Your task to perform on an android device: Search for handmade jewelry on Etsy. Image 0: 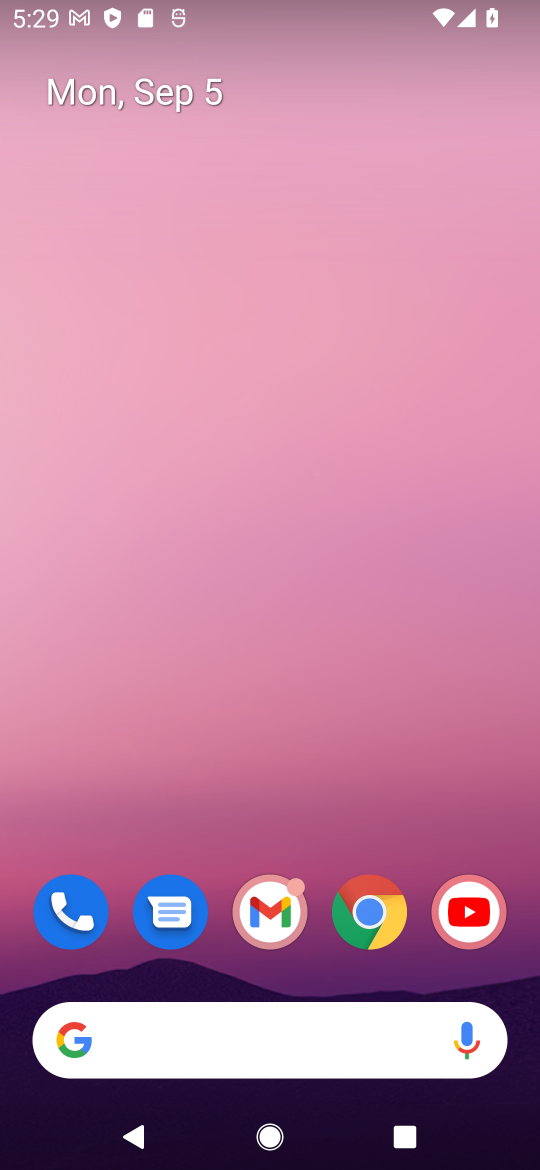
Step 0: click (382, 923)
Your task to perform on an android device: Search for handmade jewelry on Etsy. Image 1: 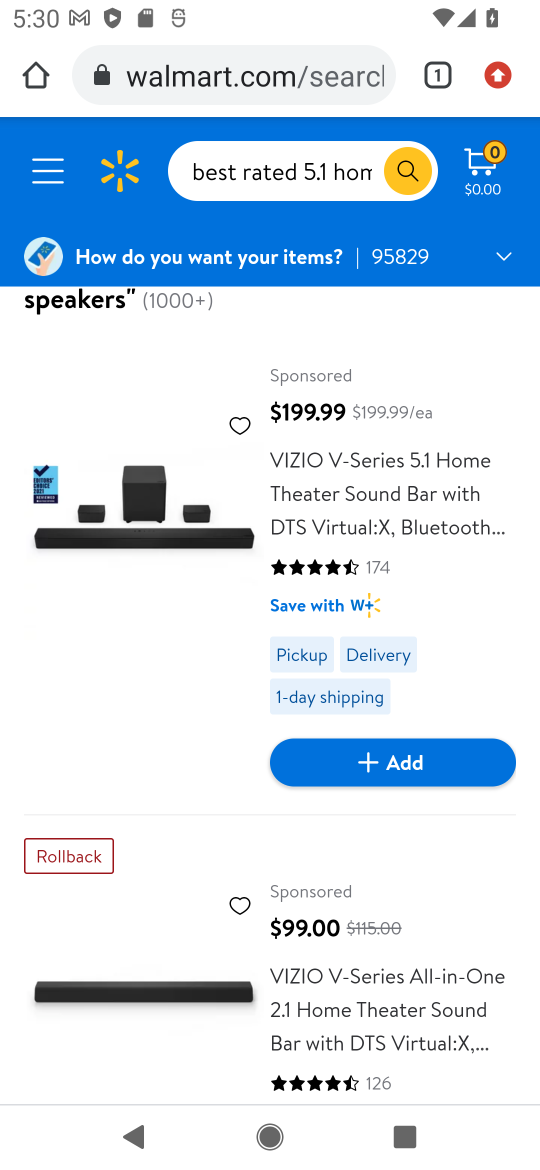
Step 1: click (255, 67)
Your task to perform on an android device: Search for handmade jewelry on Etsy. Image 2: 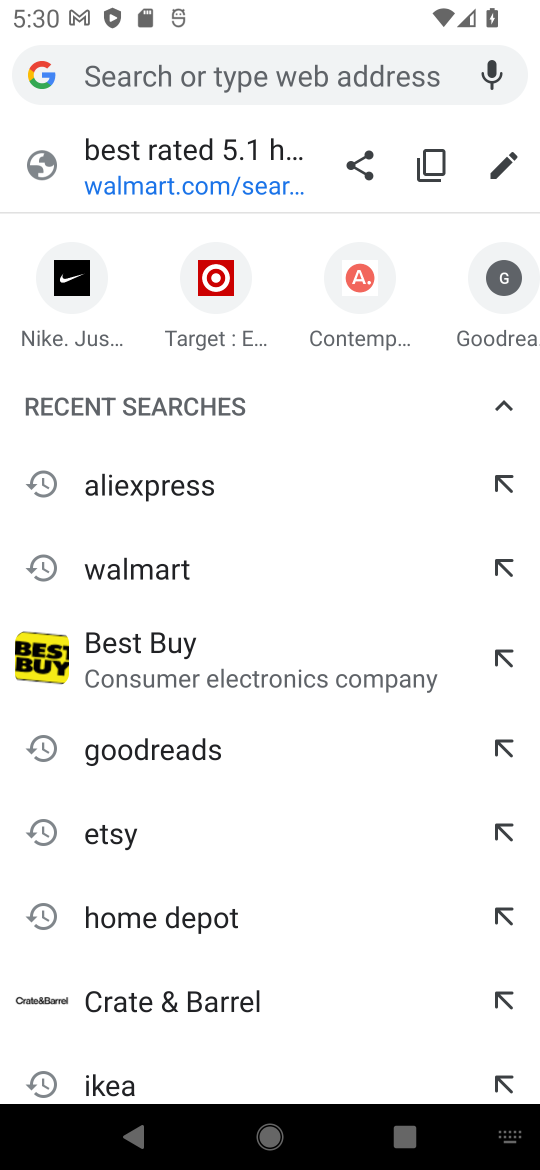
Step 2: type "etsy"
Your task to perform on an android device: Search for handmade jewelry on Etsy. Image 3: 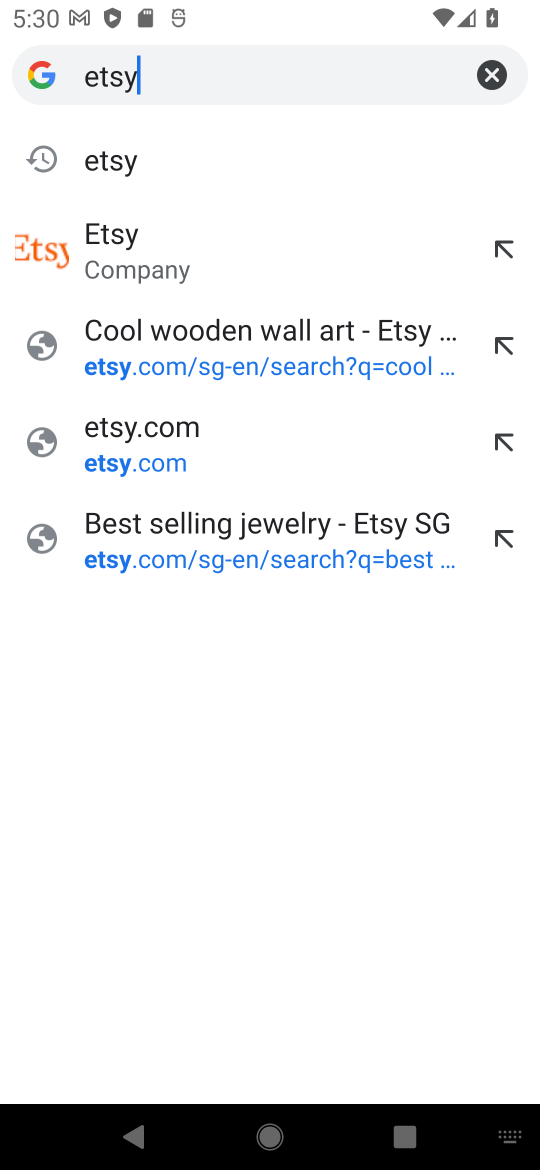
Step 3: press enter
Your task to perform on an android device: Search for handmade jewelry on Etsy. Image 4: 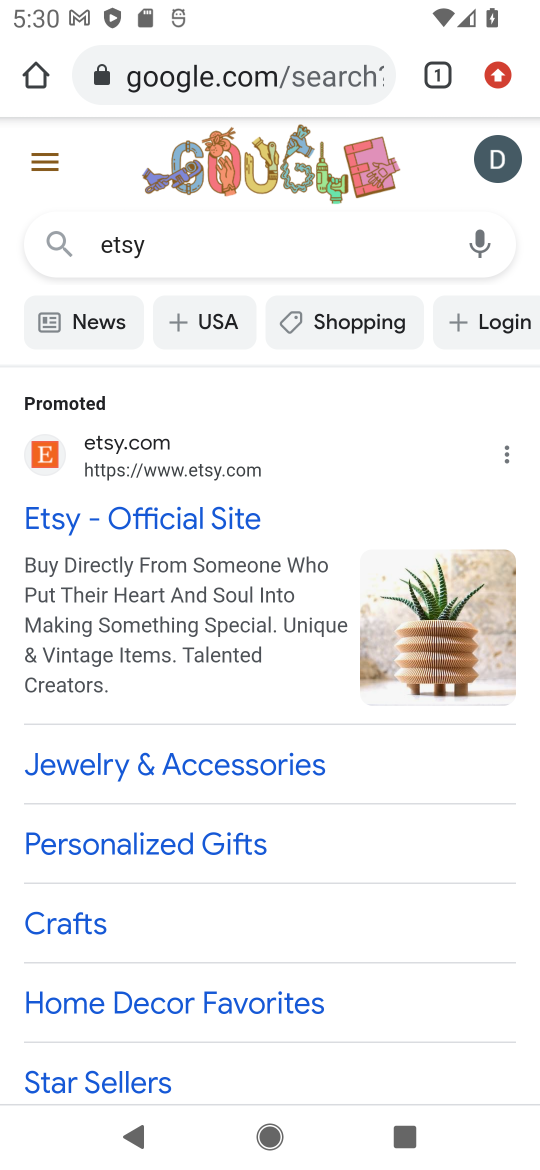
Step 4: click (132, 518)
Your task to perform on an android device: Search for handmade jewelry on Etsy. Image 5: 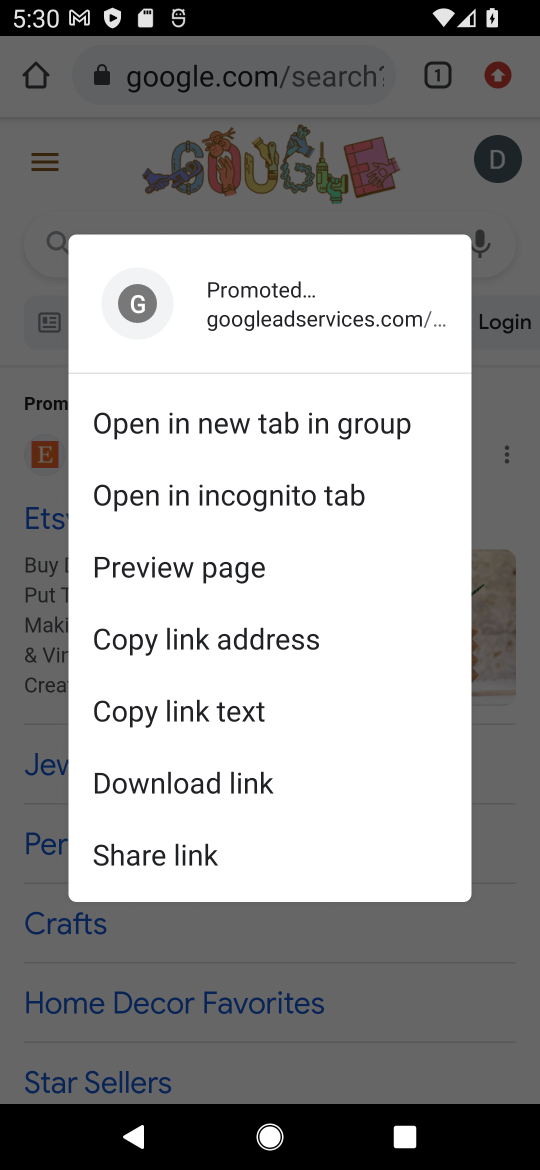
Step 5: click (45, 577)
Your task to perform on an android device: Search for handmade jewelry on Etsy. Image 6: 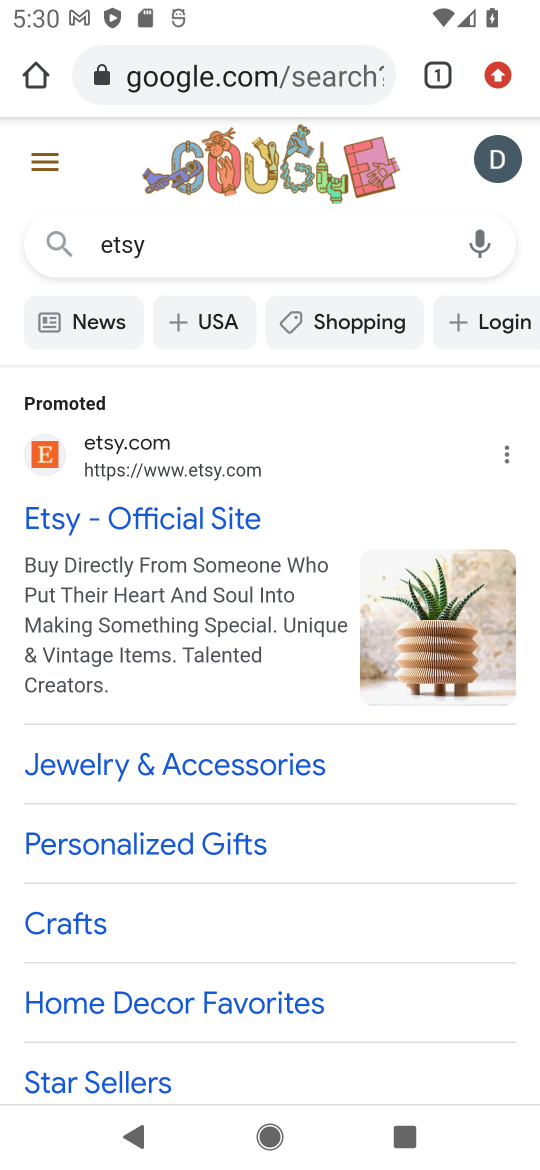
Step 6: click (139, 529)
Your task to perform on an android device: Search for handmade jewelry on Etsy. Image 7: 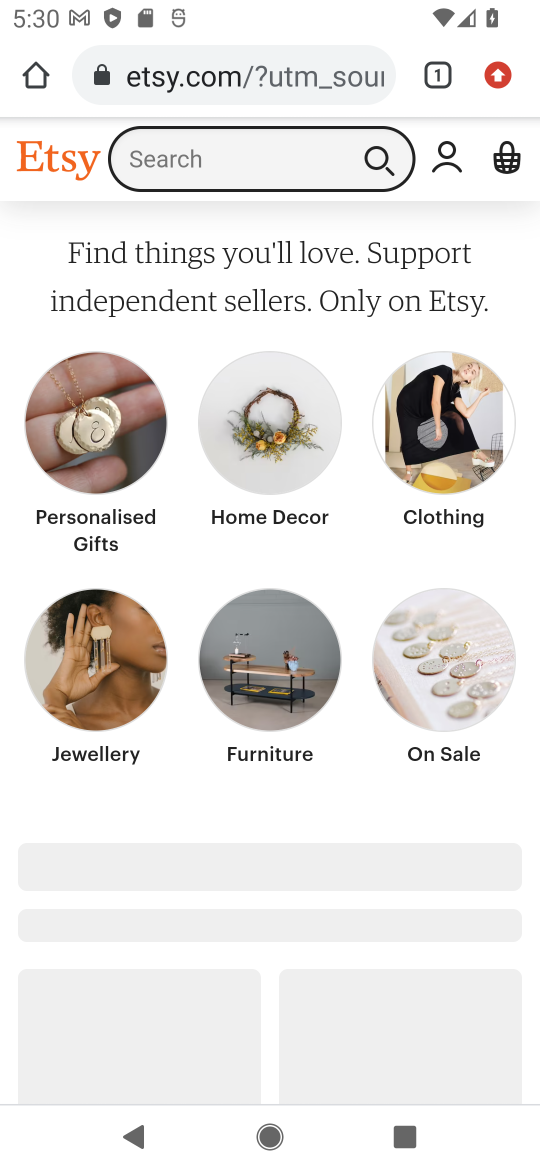
Step 7: click (264, 147)
Your task to perform on an android device: Search for handmade jewelry on Etsy. Image 8: 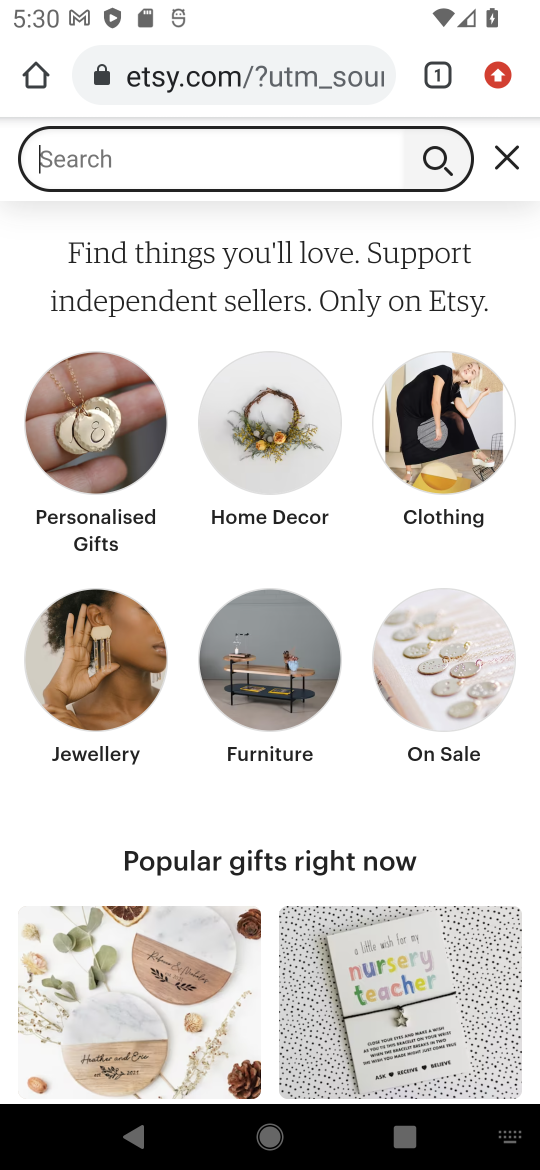
Step 8: type "handmade jewelry"
Your task to perform on an android device: Search for handmade jewelry on Etsy. Image 9: 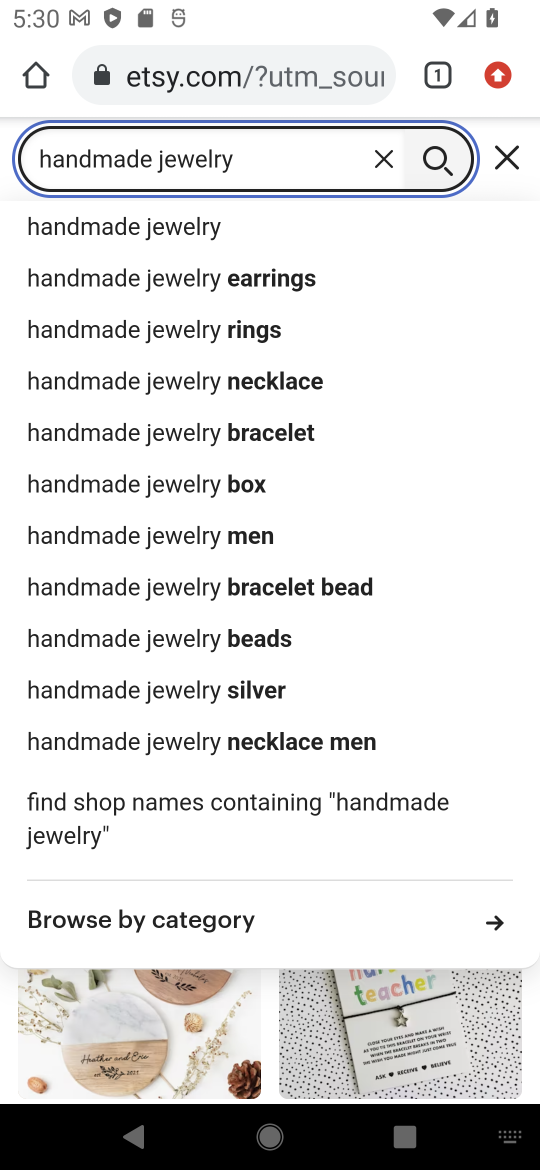
Step 9: press enter
Your task to perform on an android device: Search for handmade jewelry on Etsy. Image 10: 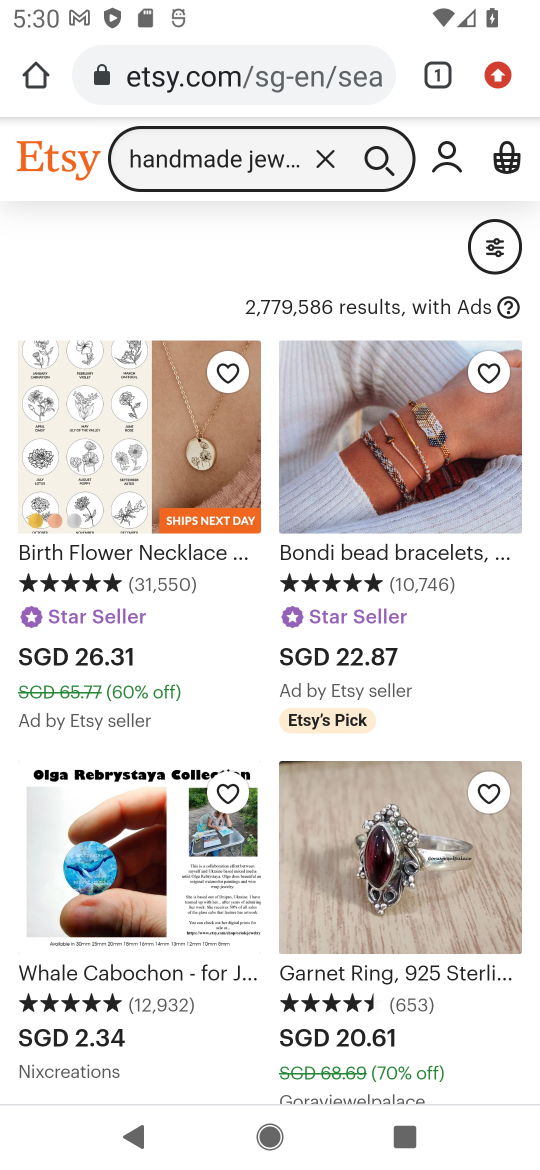
Step 10: drag from (237, 629) to (238, 316)
Your task to perform on an android device: Search for handmade jewelry on Etsy. Image 11: 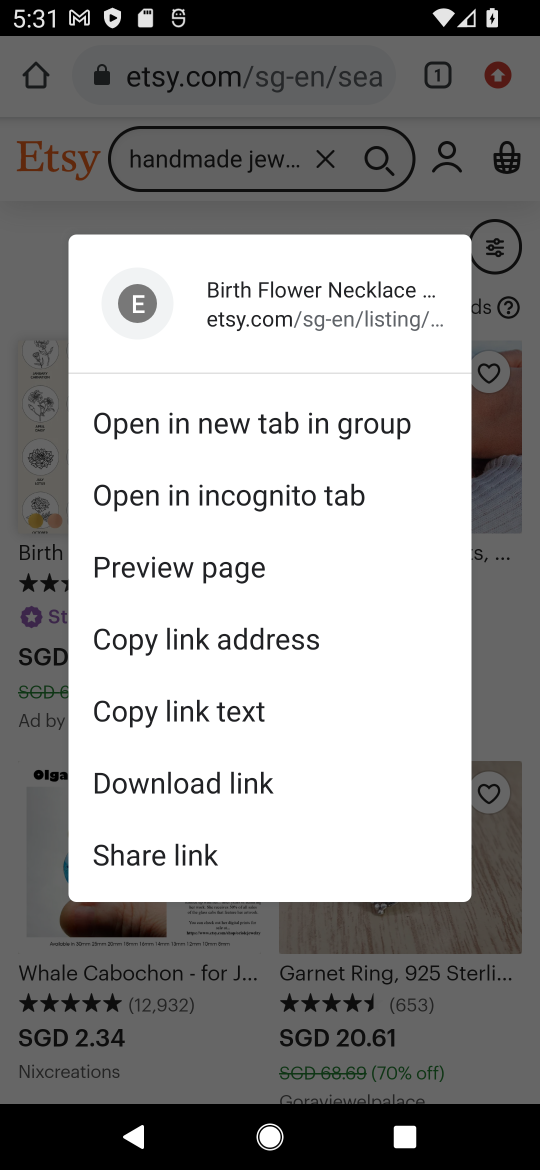
Step 11: click (507, 515)
Your task to perform on an android device: Search for handmade jewelry on Etsy. Image 12: 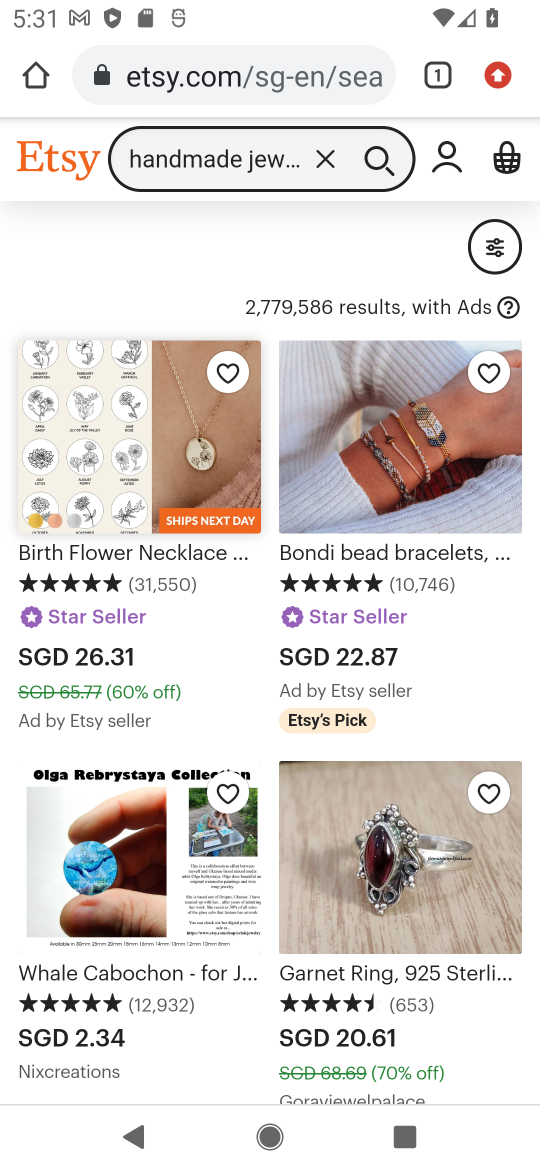
Step 12: task complete